Your task to perform on an android device: find which apps use the phone's location Image 0: 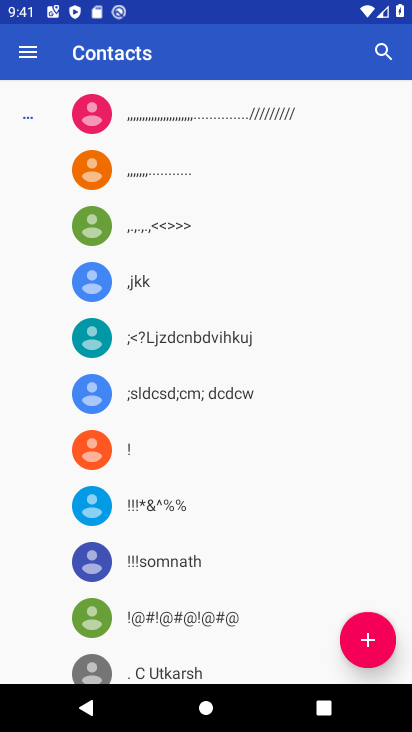
Step 0: press back button
Your task to perform on an android device: find which apps use the phone's location Image 1: 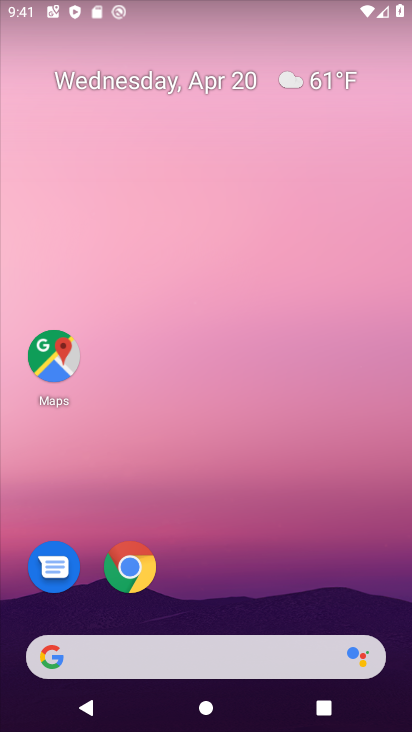
Step 1: drag from (250, 482) to (329, 0)
Your task to perform on an android device: find which apps use the phone's location Image 2: 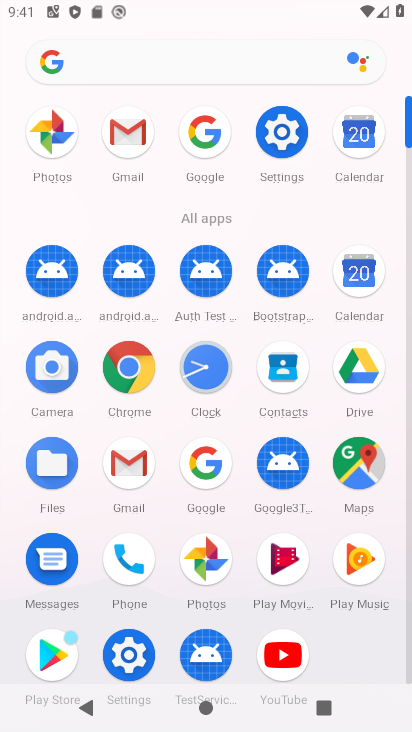
Step 2: click (286, 133)
Your task to perform on an android device: find which apps use the phone's location Image 3: 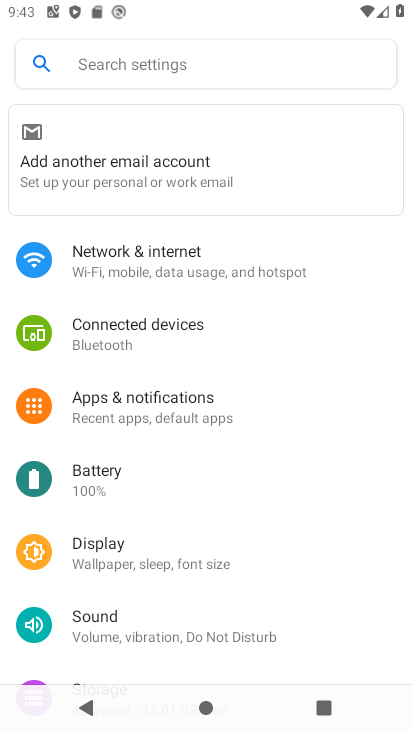
Step 3: drag from (163, 577) to (268, 94)
Your task to perform on an android device: find which apps use the phone's location Image 4: 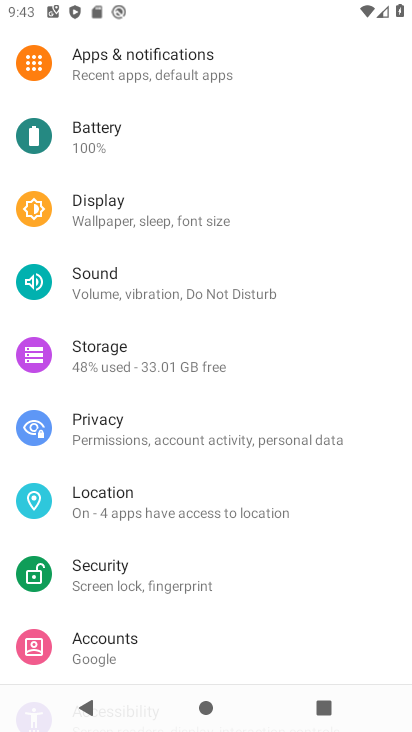
Step 4: click (117, 510)
Your task to perform on an android device: find which apps use the phone's location Image 5: 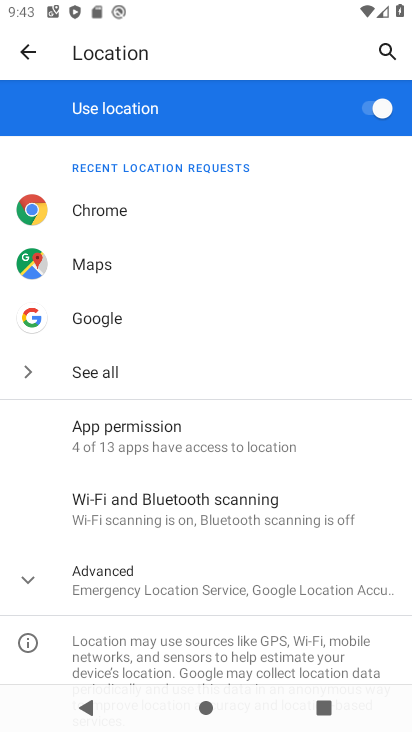
Step 5: click (156, 447)
Your task to perform on an android device: find which apps use the phone's location Image 6: 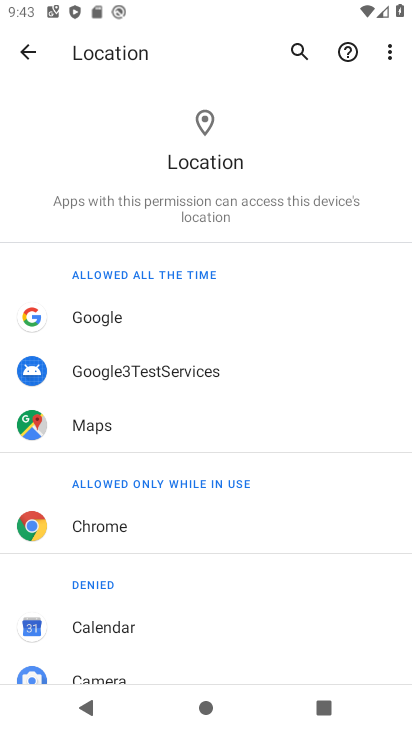
Step 6: task complete